Your task to perform on an android device: turn pop-ups off in chrome Image 0: 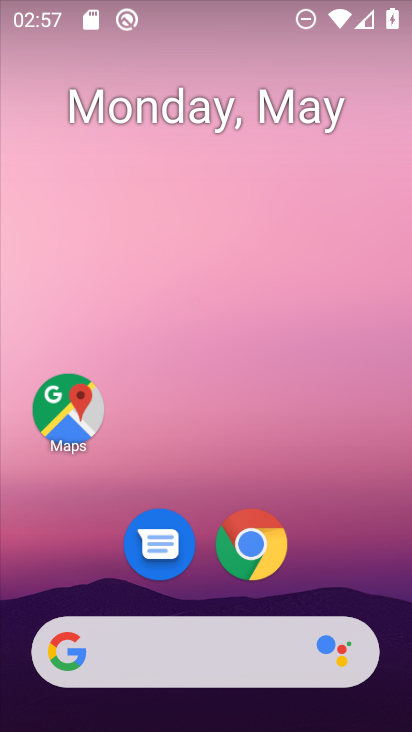
Step 0: drag from (382, 583) to (374, 264)
Your task to perform on an android device: turn pop-ups off in chrome Image 1: 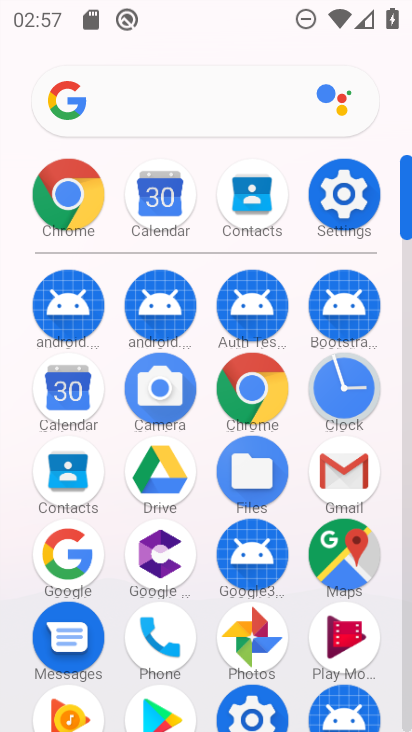
Step 1: click (265, 400)
Your task to perform on an android device: turn pop-ups off in chrome Image 2: 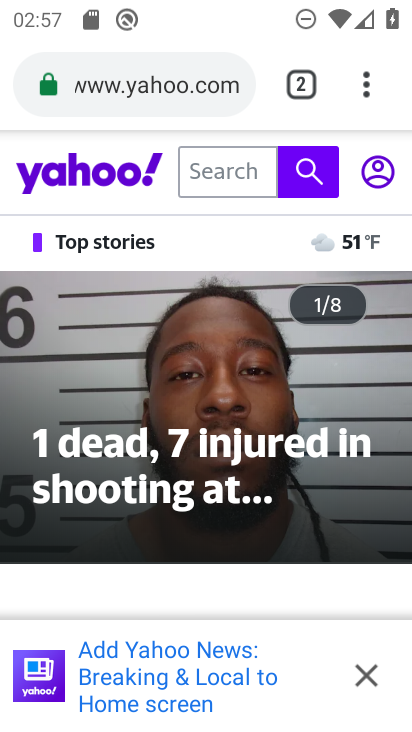
Step 2: click (365, 90)
Your task to perform on an android device: turn pop-ups off in chrome Image 3: 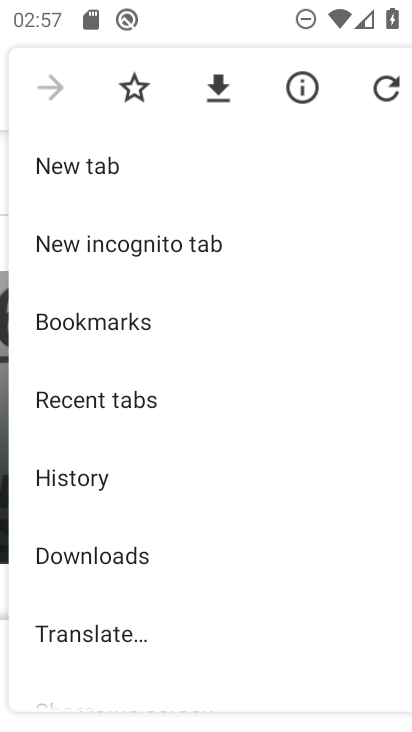
Step 3: drag from (353, 520) to (362, 431)
Your task to perform on an android device: turn pop-ups off in chrome Image 4: 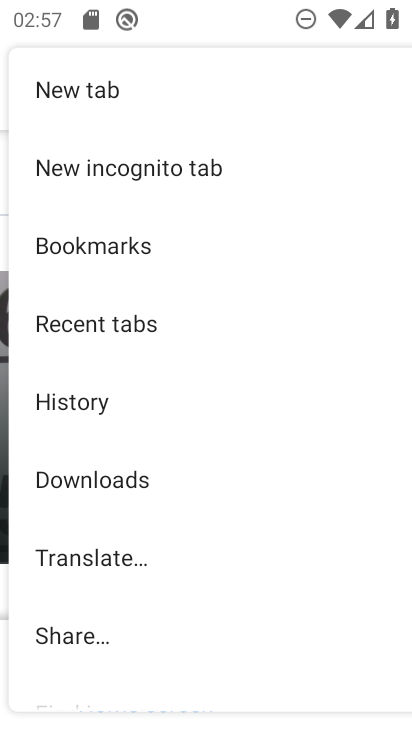
Step 4: drag from (312, 587) to (314, 398)
Your task to perform on an android device: turn pop-ups off in chrome Image 5: 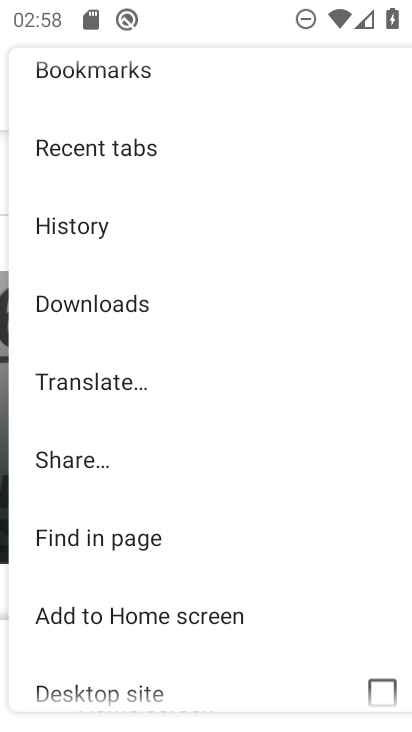
Step 5: drag from (301, 571) to (315, 449)
Your task to perform on an android device: turn pop-ups off in chrome Image 6: 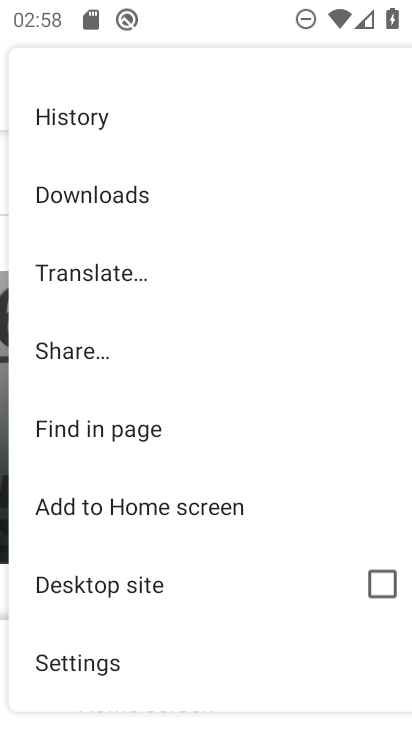
Step 6: drag from (290, 543) to (304, 415)
Your task to perform on an android device: turn pop-ups off in chrome Image 7: 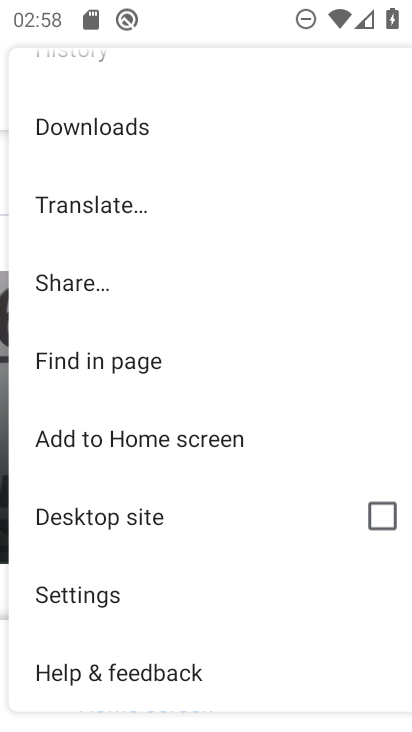
Step 7: drag from (266, 592) to (282, 479)
Your task to perform on an android device: turn pop-ups off in chrome Image 8: 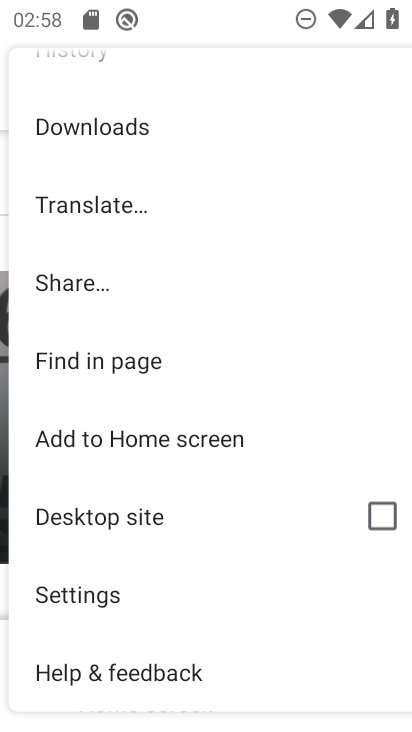
Step 8: click (164, 588)
Your task to perform on an android device: turn pop-ups off in chrome Image 9: 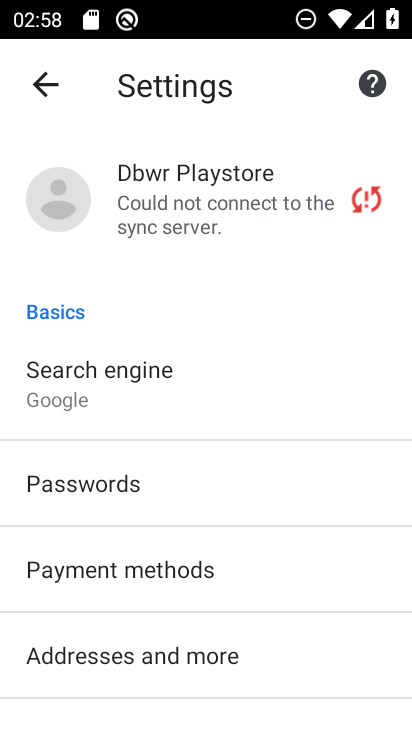
Step 9: drag from (334, 593) to (351, 491)
Your task to perform on an android device: turn pop-ups off in chrome Image 10: 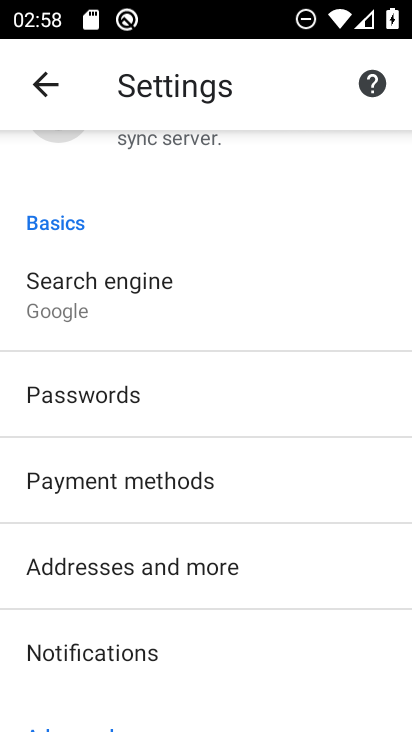
Step 10: drag from (328, 648) to (336, 478)
Your task to perform on an android device: turn pop-ups off in chrome Image 11: 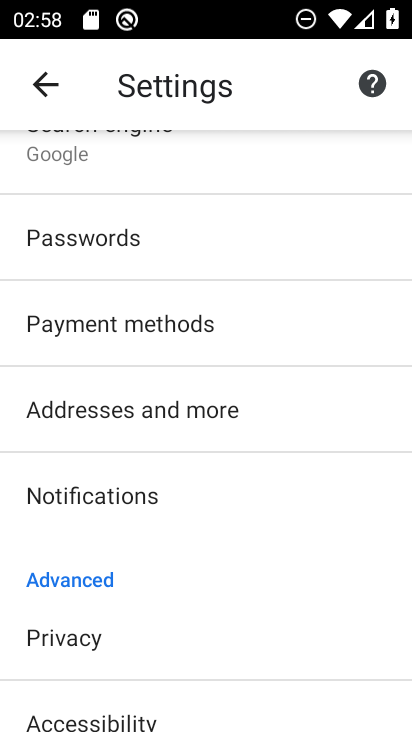
Step 11: drag from (321, 604) to (331, 509)
Your task to perform on an android device: turn pop-ups off in chrome Image 12: 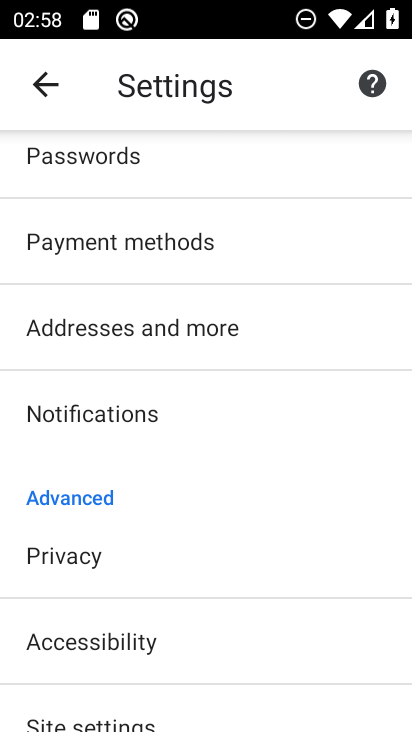
Step 12: drag from (327, 606) to (337, 556)
Your task to perform on an android device: turn pop-ups off in chrome Image 13: 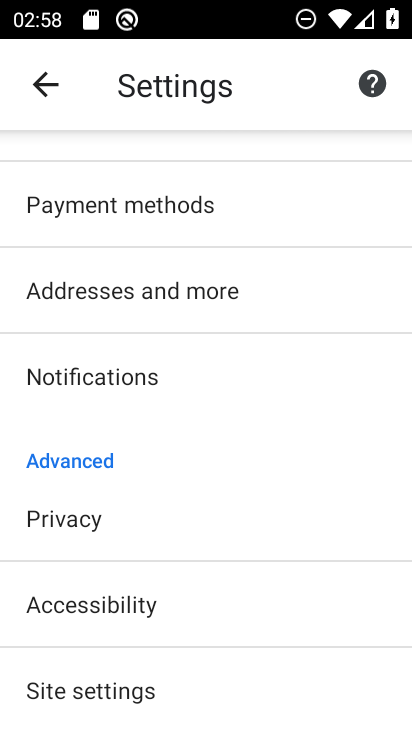
Step 13: drag from (326, 642) to (321, 530)
Your task to perform on an android device: turn pop-ups off in chrome Image 14: 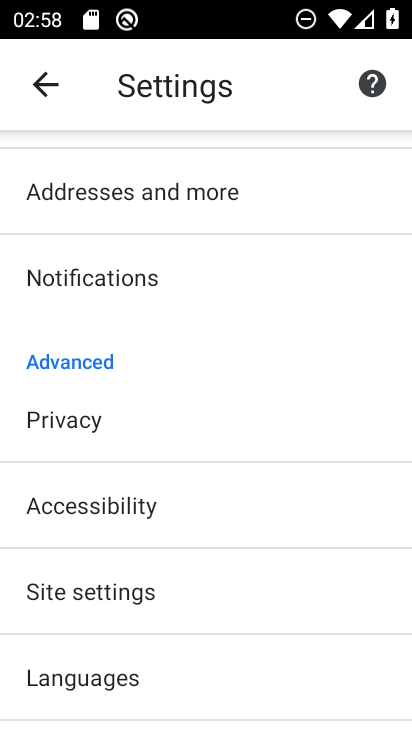
Step 14: drag from (310, 624) to (321, 522)
Your task to perform on an android device: turn pop-ups off in chrome Image 15: 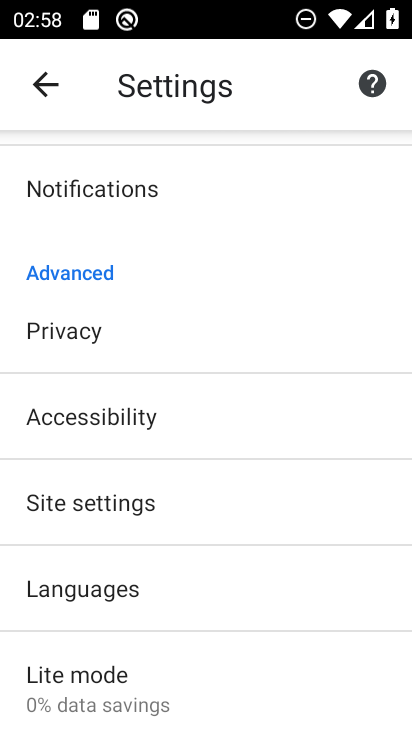
Step 15: drag from (302, 628) to (313, 533)
Your task to perform on an android device: turn pop-ups off in chrome Image 16: 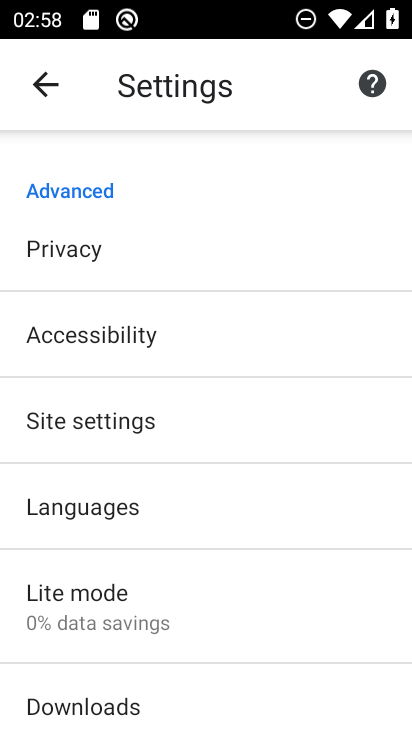
Step 16: click (232, 415)
Your task to perform on an android device: turn pop-ups off in chrome Image 17: 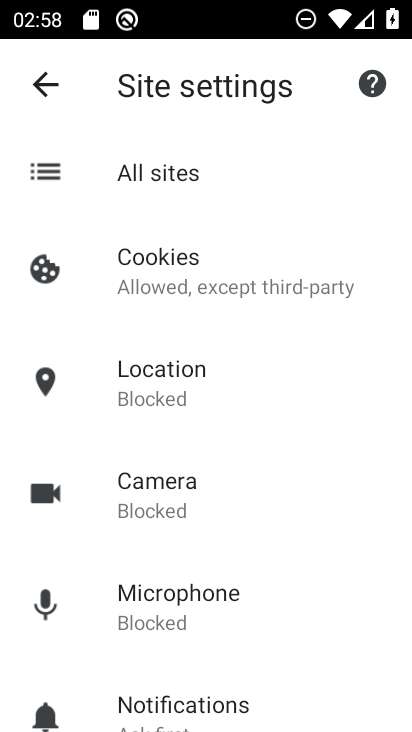
Step 17: drag from (329, 563) to (329, 458)
Your task to perform on an android device: turn pop-ups off in chrome Image 18: 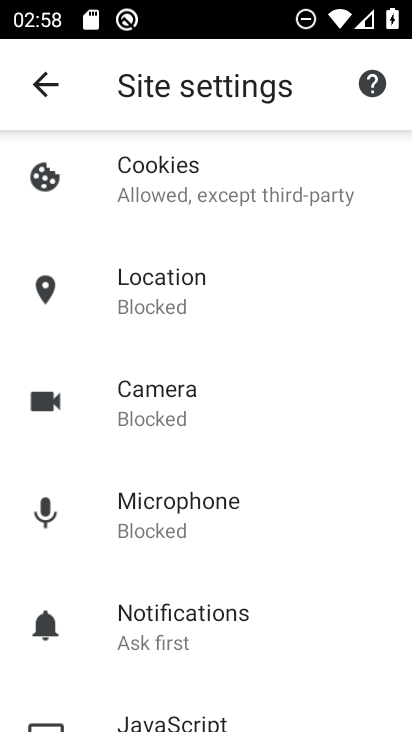
Step 18: drag from (328, 593) to (333, 478)
Your task to perform on an android device: turn pop-ups off in chrome Image 19: 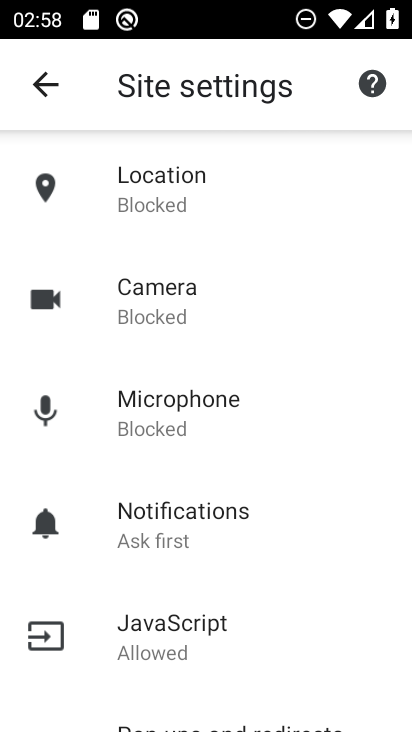
Step 19: drag from (325, 611) to (318, 489)
Your task to perform on an android device: turn pop-ups off in chrome Image 20: 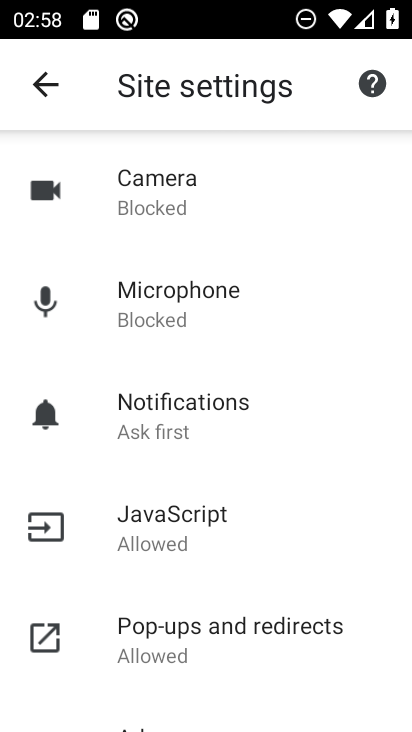
Step 20: drag from (323, 647) to (318, 500)
Your task to perform on an android device: turn pop-ups off in chrome Image 21: 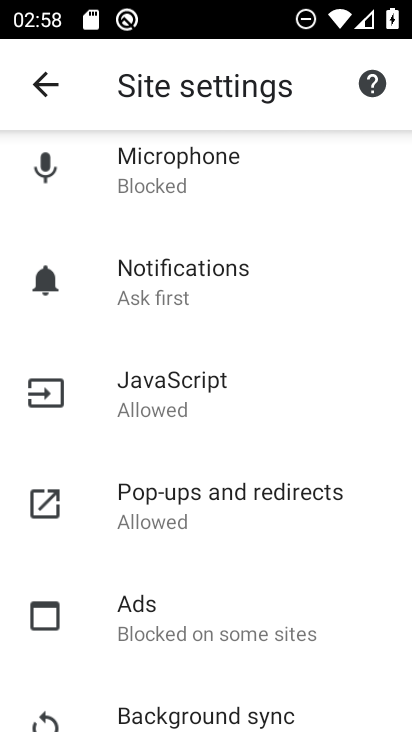
Step 21: click (260, 513)
Your task to perform on an android device: turn pop-ups off in chrome Image 22: 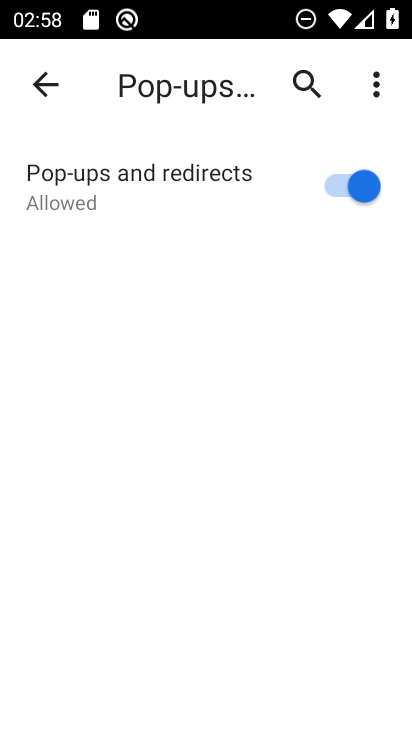
Step 22: click (365, 191)
Your task to perform on an android device: turn pop-ups off in chrome Image 23: 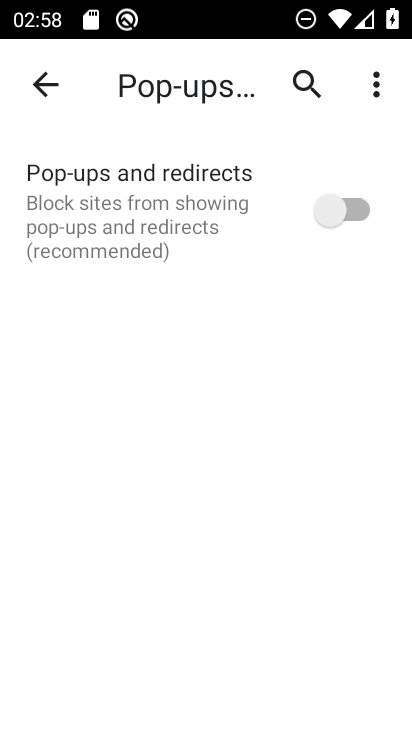
Step 23: task complete